Your task to perform on an android device: Turn on the flashlight Image 0: 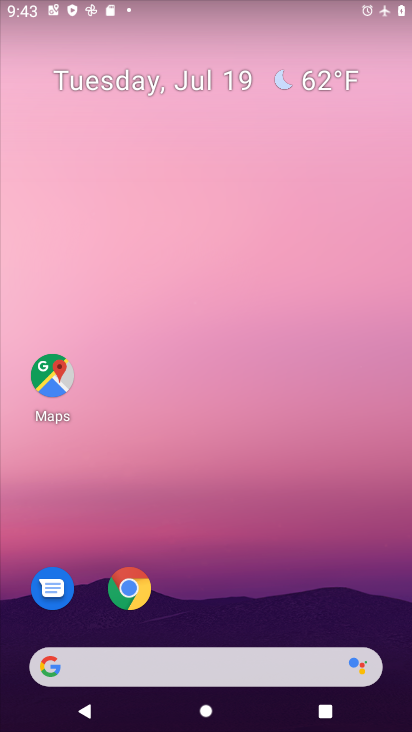
Step 0: drag from (318, 565) to (235, 11)
Your task to perform on an android device: Turn on the flashlight Image 1: 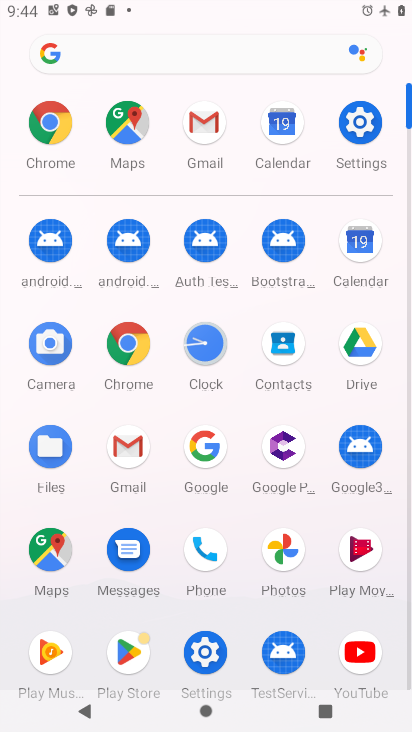
Step 1: click (375, 117)
Your task to perform on an android device: Turn on the flashlight Image 2: 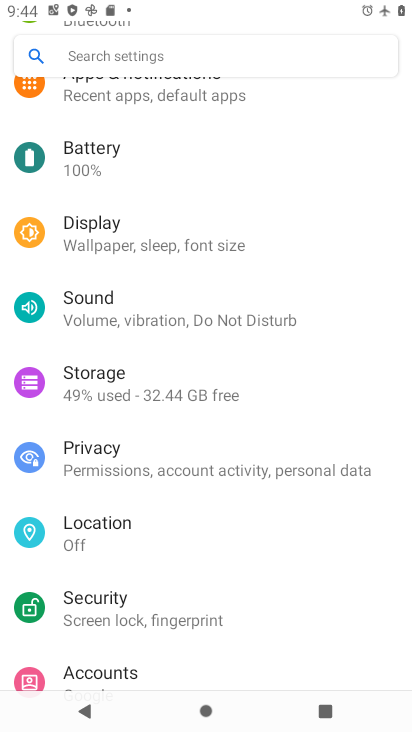
Step 2: task complete